Your task to perform on an android device: check the backup settings in the google photos Image 0: 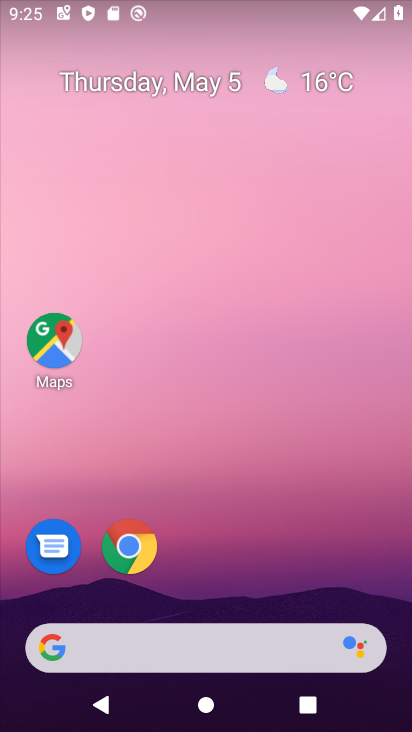
Step 0: drag from (276, 590) to (184, 111)
Your task to perform on an android device: check the backup settings in the google photos Image 1: 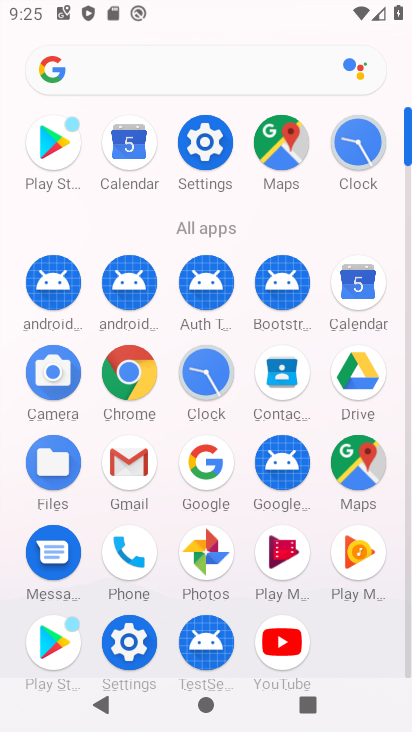
Step 1: click (196, 552)
Your task to perform on an android device: check the backup settings in the google photos Image 2: 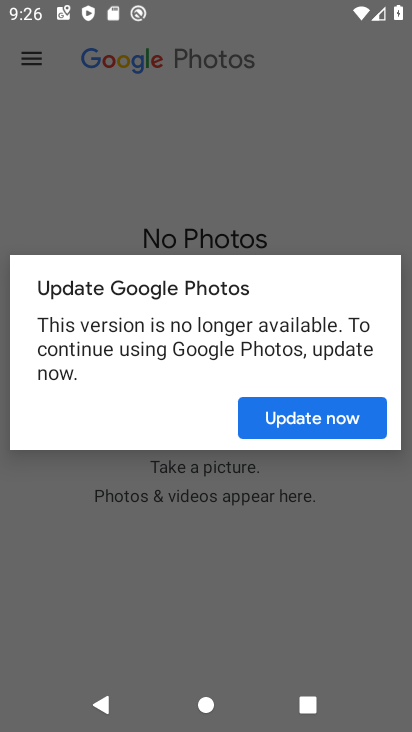
Step 2: click (308, 414)
Your task to perform on an android device: check the backup settings in the google photos Image 3: 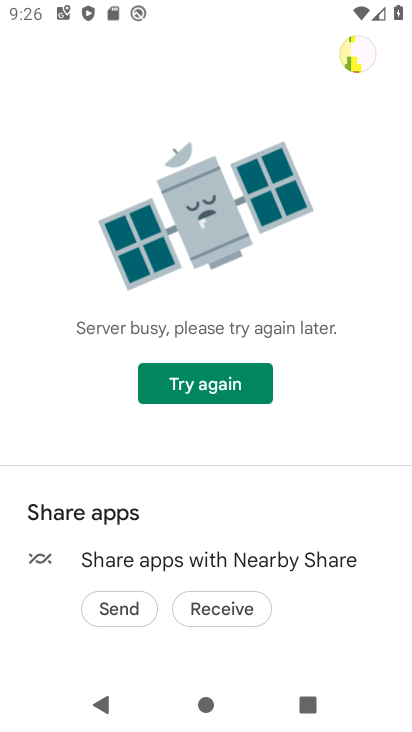
Step 3: click (184, 387)
Your task to perform on an android device: check the backup settings in the google photos Image 4: 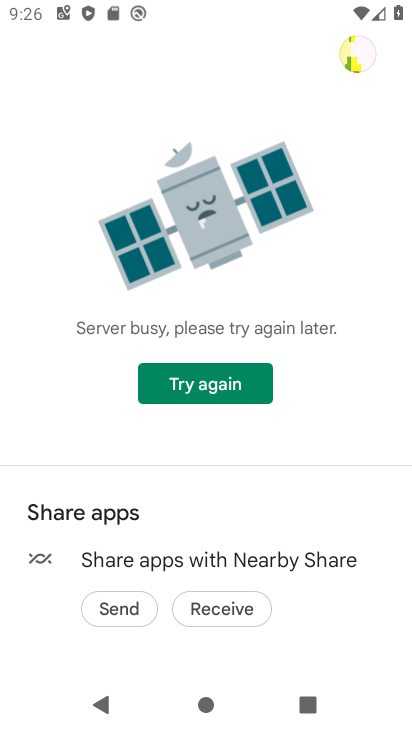
Step 4: click (184, 387)
Your task to perform on an android device: check the backup settings in the google photos Image 5: 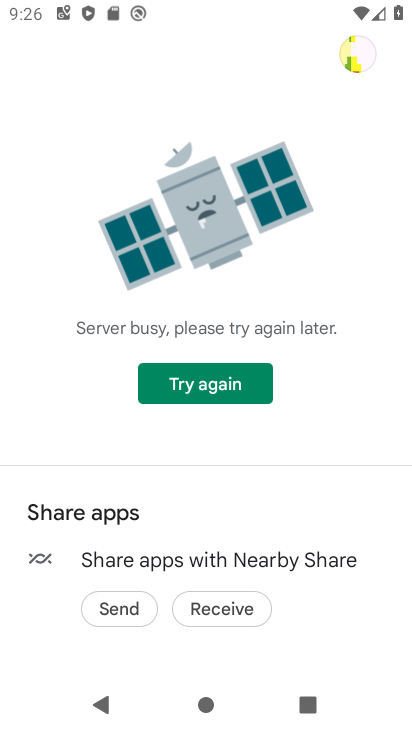
Step 5: click (261, 393)
Your task to perform on an android device: check the backup settings in the google photos Image 6: 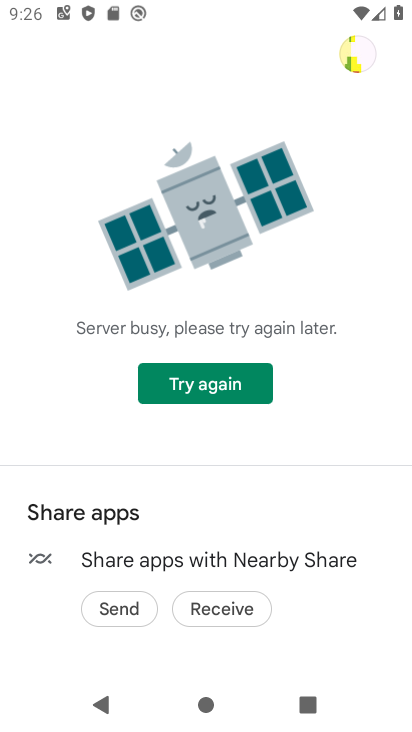
Step 6: click (261, 393)
Your task to perform on an android device: check the backup settings in the google photos Image 7: 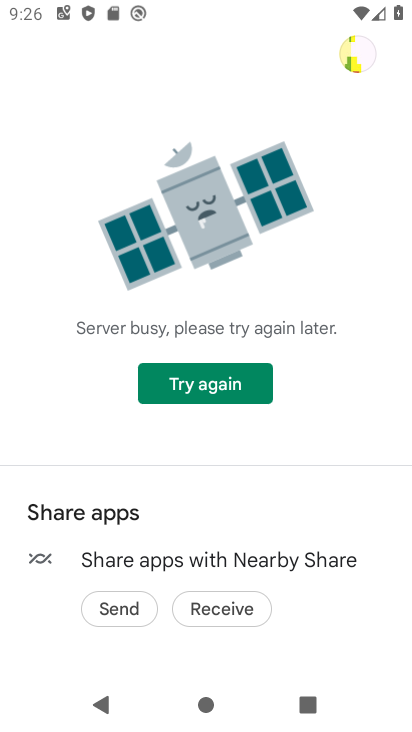
Step 7: task complete